Your task to perform on an android device: find snoozed emails in the gmail app Image 0: 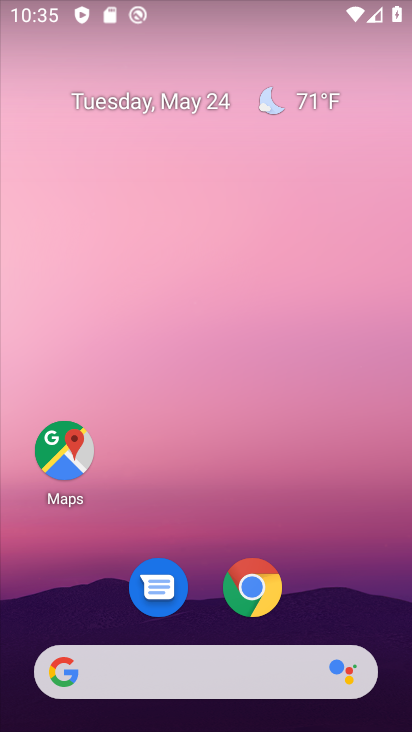
Step 0: drag from (294, 696) to (216, 208)
Your task to perform on an android device: find snoozed emails in the gmail app Image 1: 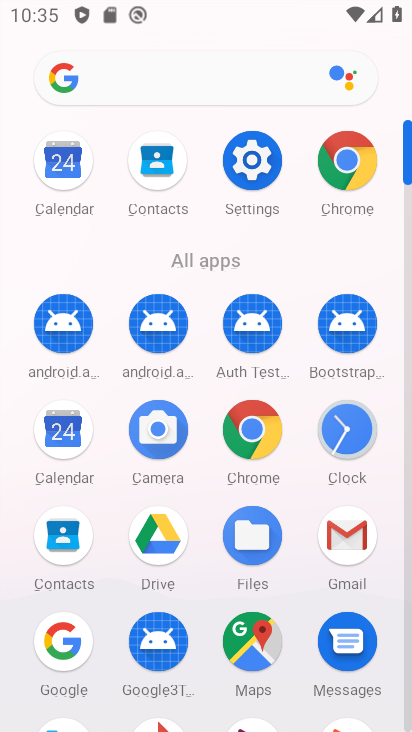
Step 1: drag from (349, 511) to (352, 546)
Your task to perform on an android device: find snoozed emails in the gmail app Image 2: 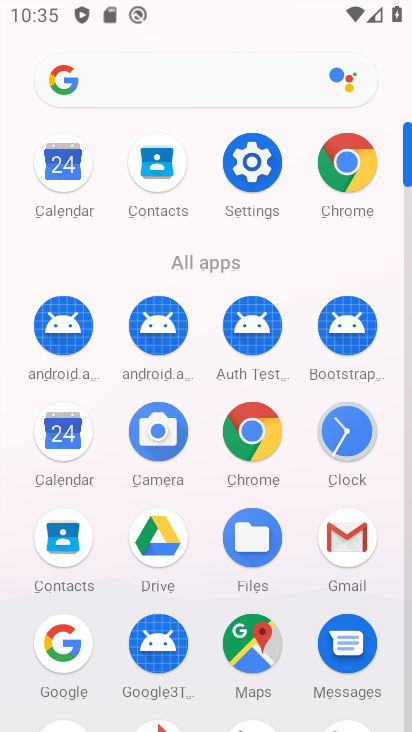
Step 2: click (343, 528)
Your task to perform on an android device: find snoozed emails in the gmail app Image 3: 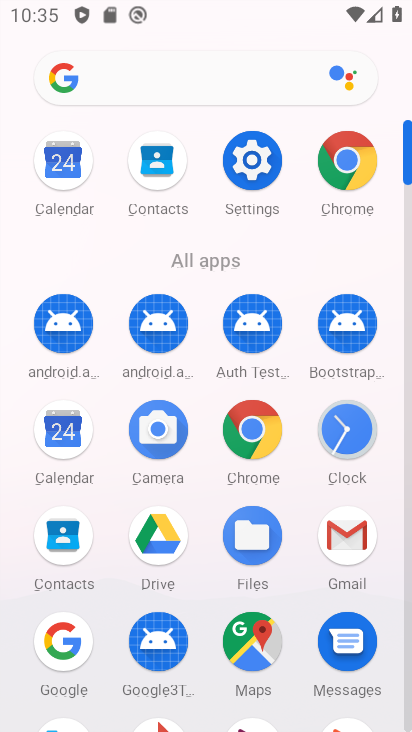
Step 3: click (343, 528)
Your task to perform on an android device: find snoozed emails in the gmail app Image 4: 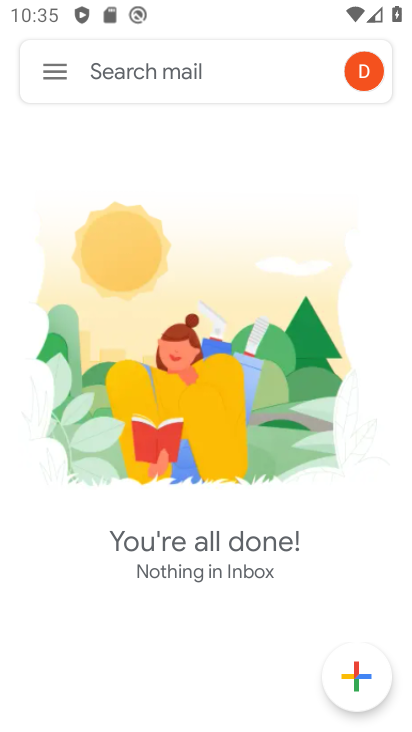
Step 4: click (55, 68)
Your task to perform on an android device: find snoozed emails in the gmail app Image 5: 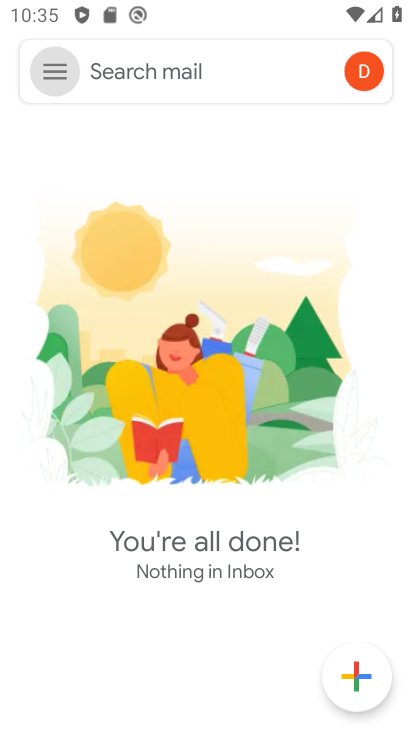
Step 5: click (55, 68)
Your task to perform on an android device: find snoozed emails in the gmail app Image 6: 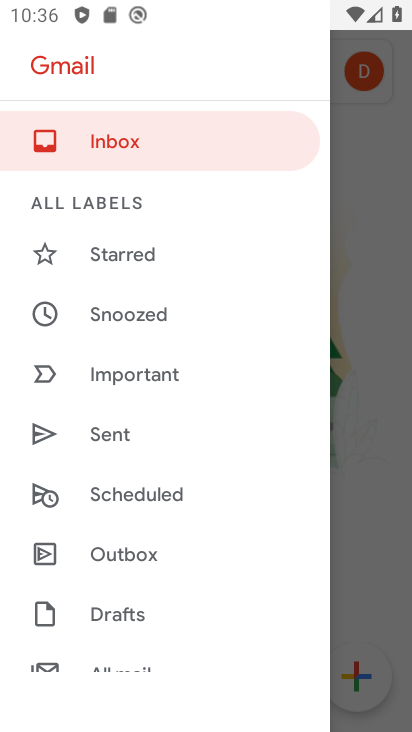
Step 6: drag from (166, 519) to (193, 138)
Your task to perform on an android device: find snoozed emails in the gmail app Image 7: 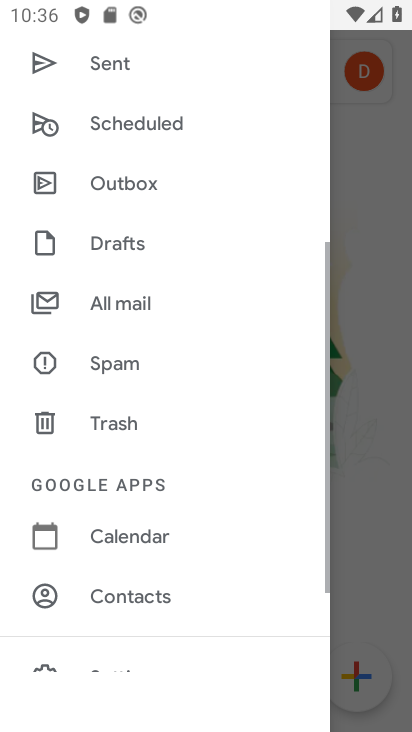
Step 7: drag from (198, 421) to (236, 169)
Your task to perform on an android device: find snoozed emails in the gmail app Image 8: 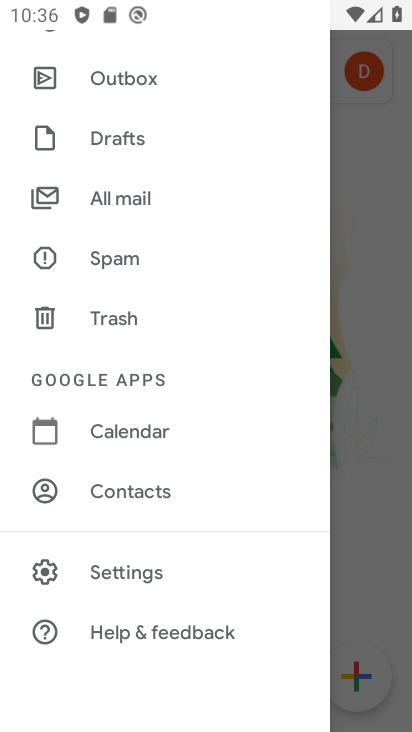
Step 8: drag from (131, 228) to (213, 650)
Your task to perform on an android device: find snoozed emails in the gmail app Image 9: 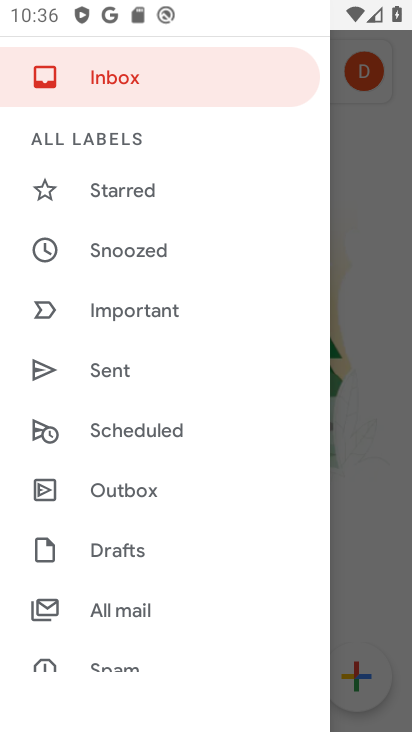
Step 9: click (126, 246)
Your task to perform on an android device: find snoozed emails in the gmail app Image 10: 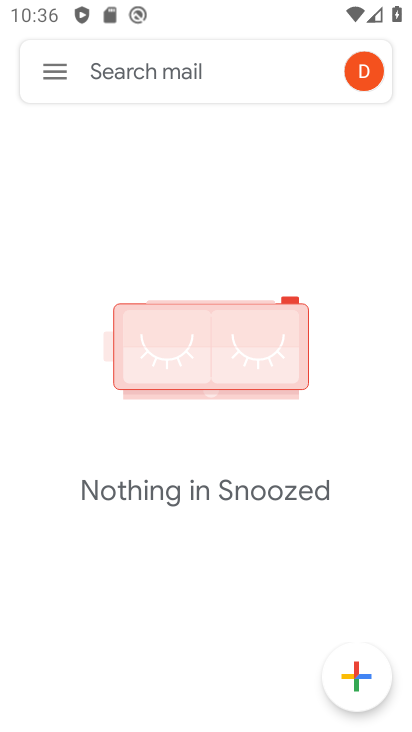
Step 10: task complete